Your task to perform on an android device: turn off improve location accuracy Image 0: 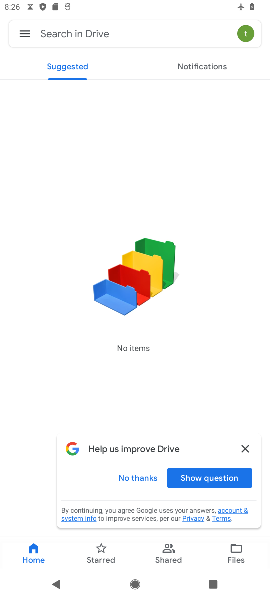
Step 0: press home button
Your task to perform on an android device: turn off improve location accuracy Image 1: 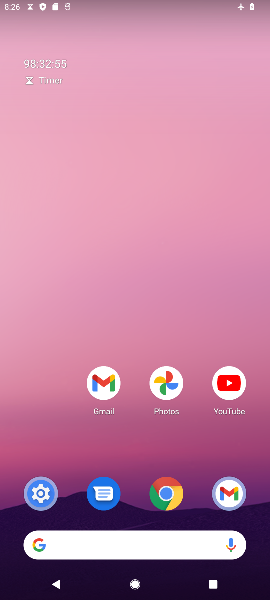
Step 1: drag from (144, 483) to (148, 24)
Your task to perform on an android device: turn off improve location accuracy Image 2: 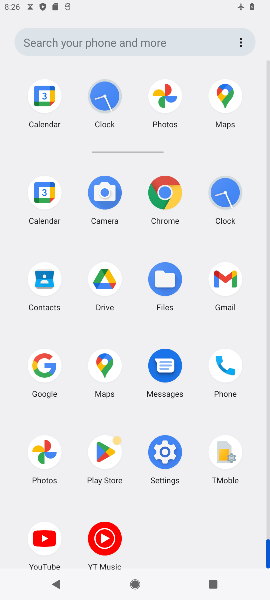
Step 2: click (163, 442)
Your task to perform on an android device: turn off improve location accuracy Image 3: 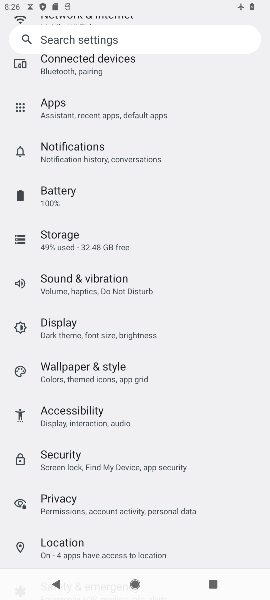
Step 3: drag from (93, 452) to (126, 170)
Your task to perform on an android device: turn off improve location accuracy Image 4: 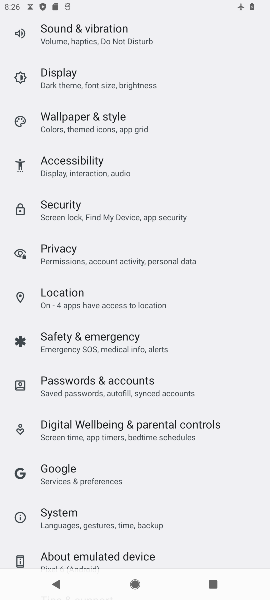
Step 4: click (98, 289)
Your task to perform on an android device: turn off improve location accuracy Image 5: 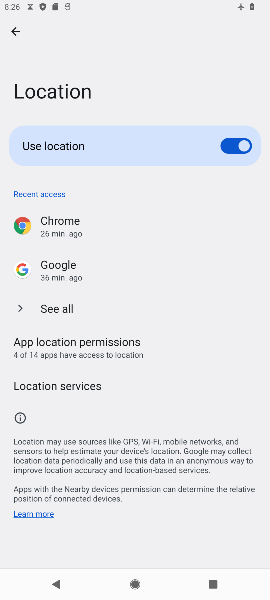
Step 5: click (84, 387)
Your task to perform on an android device: turn off improve location accuracy Image 6: 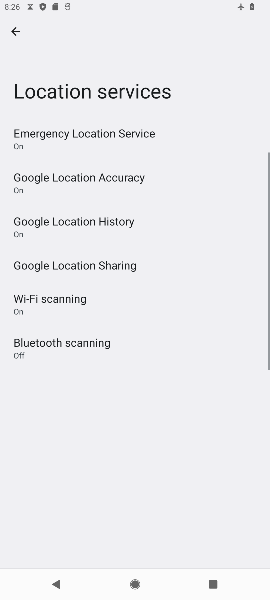
Step 6: click (113, 183)
Your task to perform on an android device: turn off improve location accuracy Image 7: 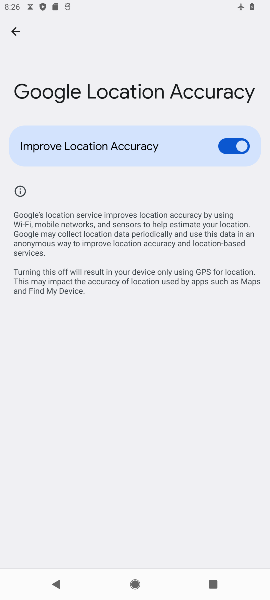
Step 7: click (228, 139)
Your task to perform on an android device: turn off improve location accuracy Image 8: 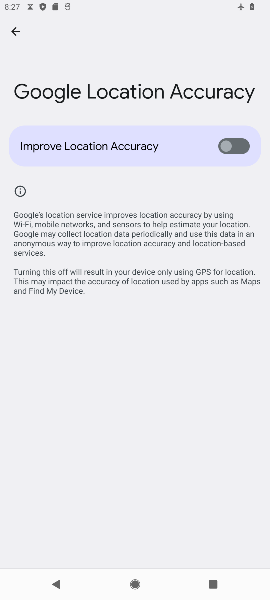
Step 8: task complete